Your task to perform on an android device: What is the recent news? Image 0: 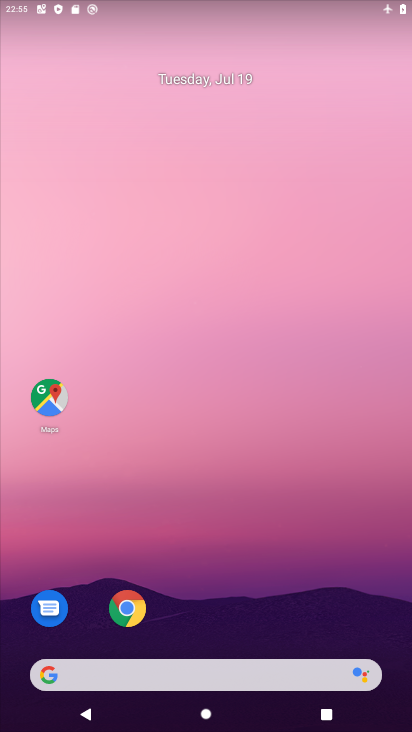
Step 0: drag from (324, 528) to (234, 2)
Your task to perform on an android device: What is the recent news? Image 1: 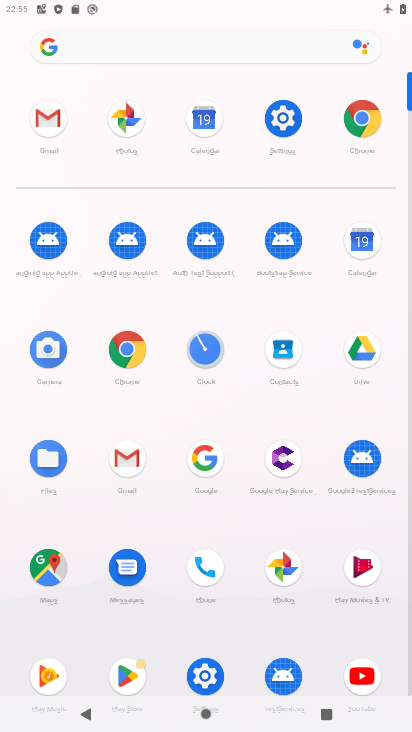
Step 1: click (366, 114)
Your task to perform on an android device: What is the recent news? Image 2: 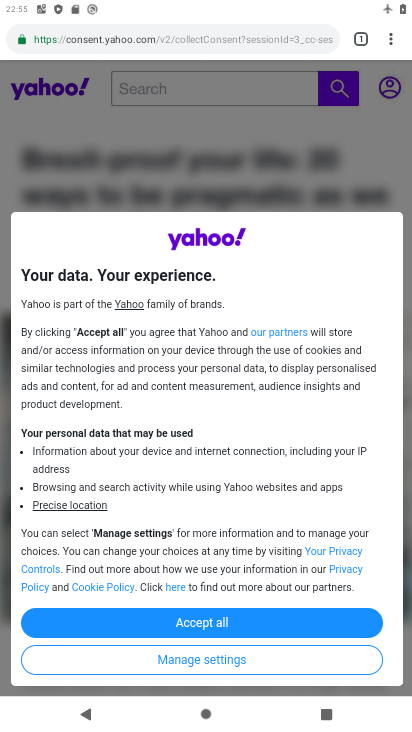
Step 2: click (245, 35)
Your task to perform on an android device: What is the recent news? Image 3: 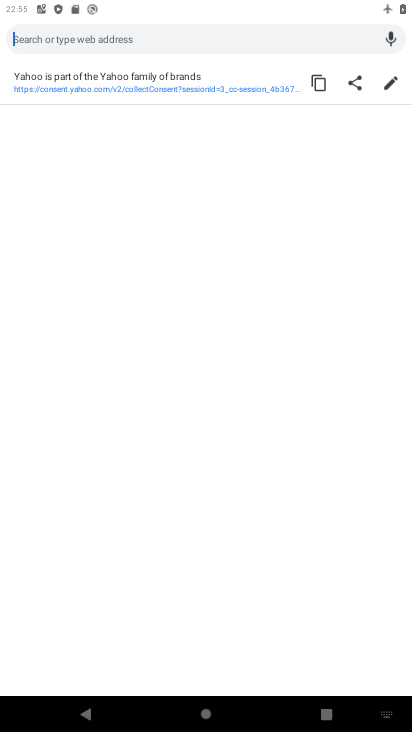
Step 3: type "news"
Your task to perform on an android device: What is the recent news? Image 4: 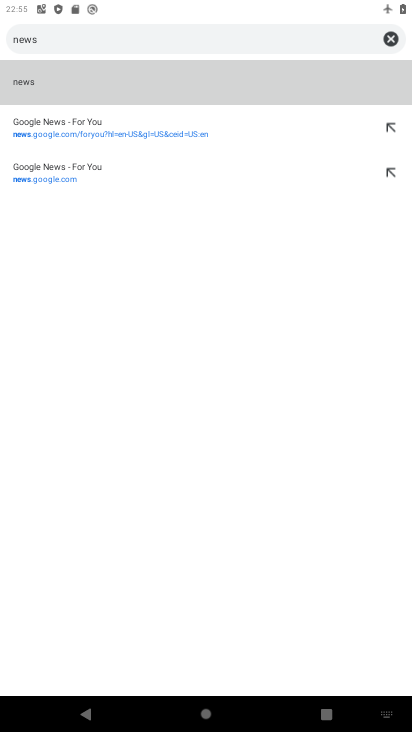
Step 4: click (39, 75)
Your task to perform on an android device: What is the recent news? Image 5: 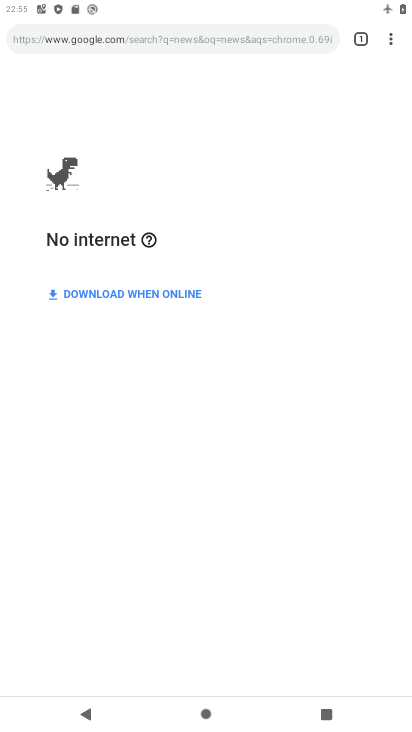
Step 5: task complete